Your task to perform on an android device: Clear the shopping cart on costco. Search for "logitech g pro" on costco, select the first entry, and add it to the cart. Image 0: 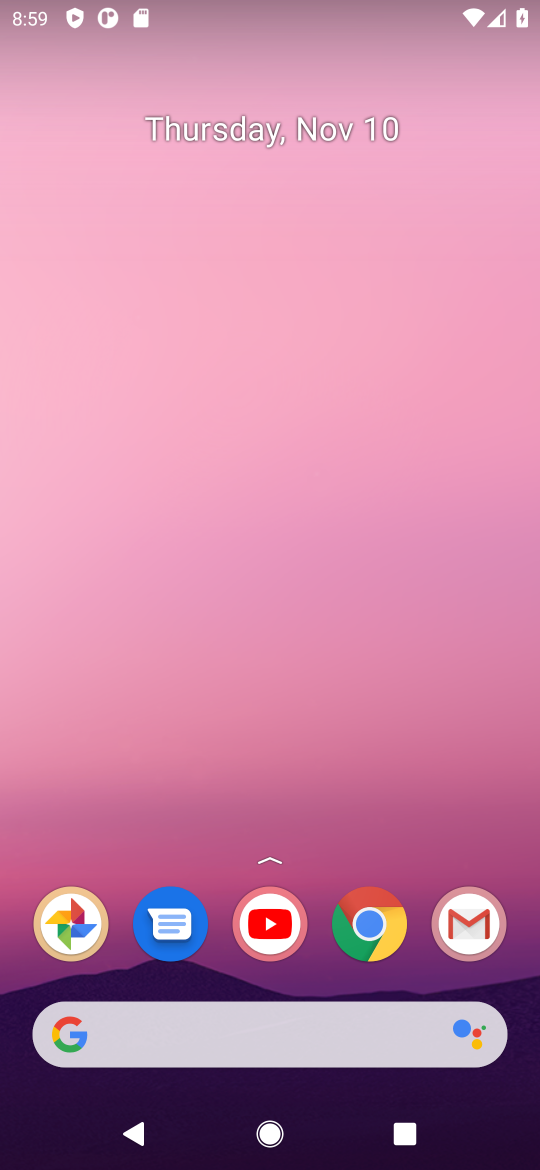
Step 0: click (362, 935)
Your task to perform on an android device: Clear the shopping cart on costco. Search for "logitech g pro" on costco, select the first entry, and add it to the cart. Image 1: 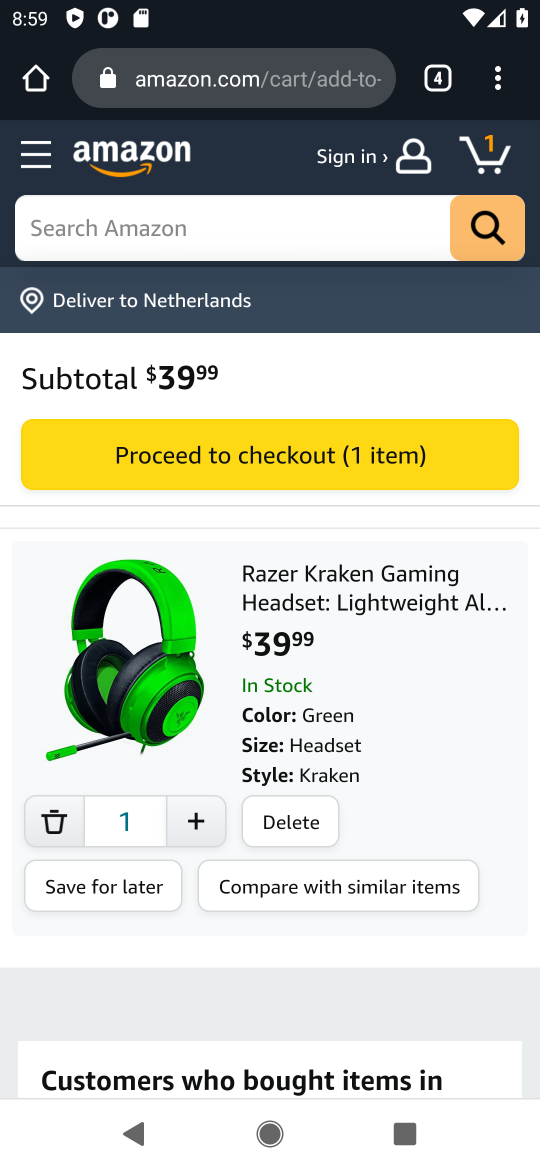
Step 1: click (192, 77)
Your task to perform on an android device: Clear the shopping cart on costco. Search for "logitech g pro" on costco, select the first entry, and add it to the cart. Image 2: 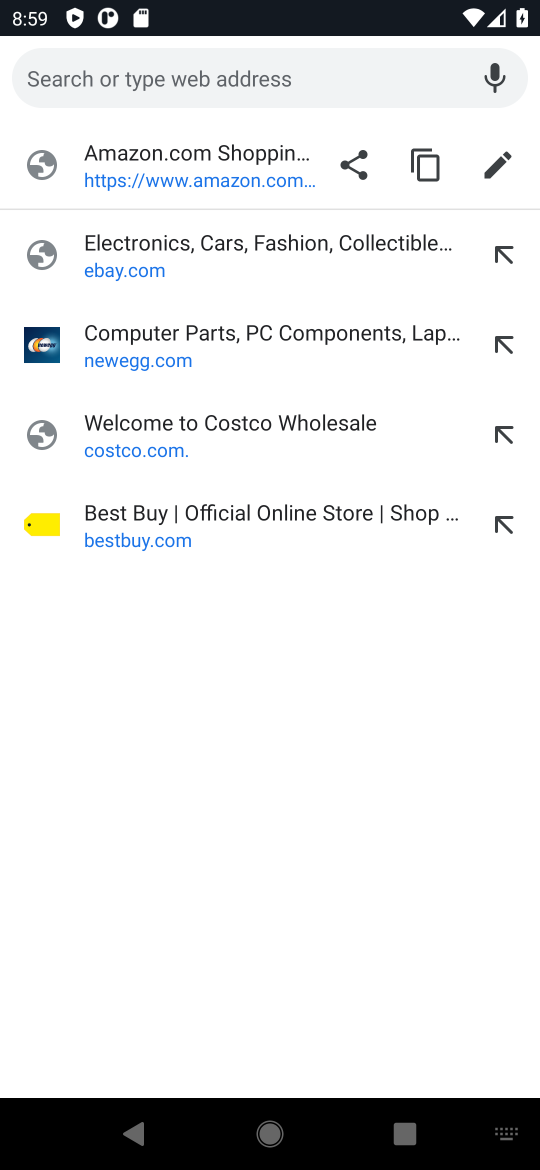
Step 2: click (118, 422)
Your task to perform on an android device: Clear the shopping cart on costco. Search for "logitech g pro" on costco, select the first entry, and add it to the cart. Image 3: 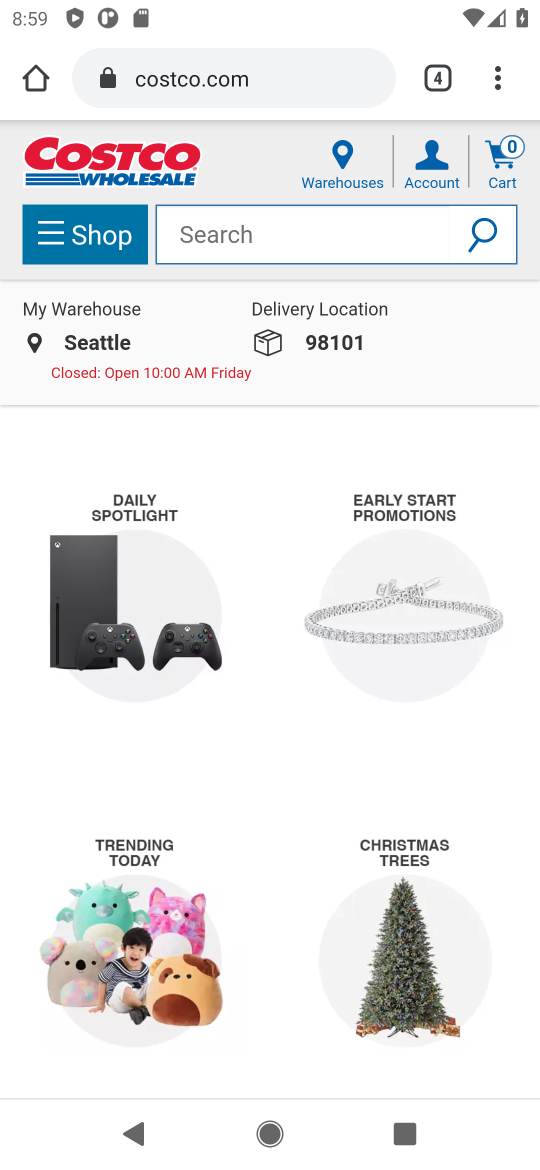
Step 3: click (497, 161)
Your task to perform on an android device: Clear the shopping cart on costco. Search for "logitech g pro" on costco, select the first entry, and add it to the cart. Image 4: 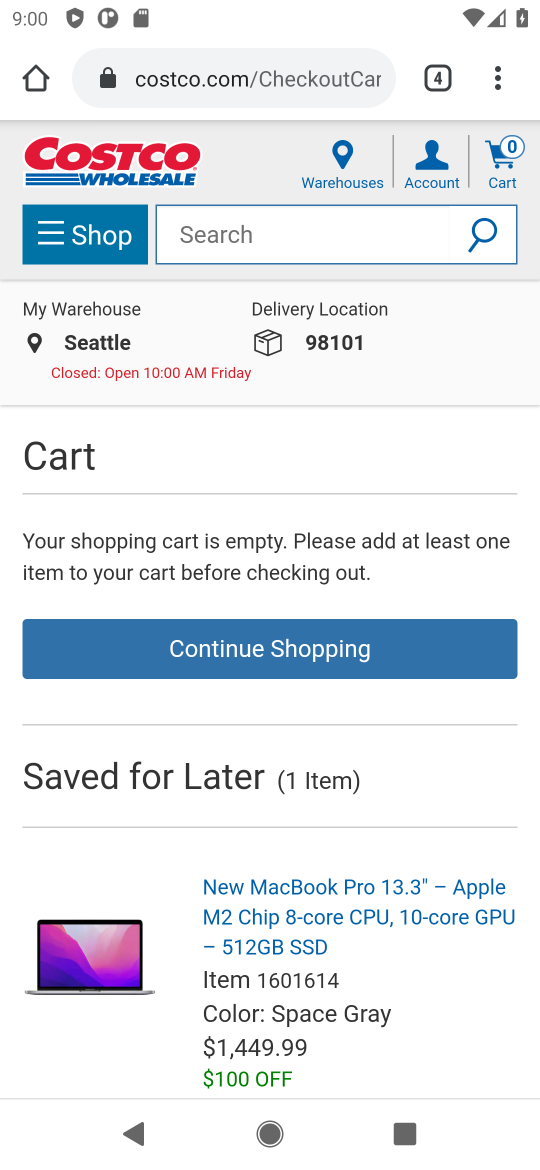
Step 4: click (222, 245)
Your task to perform on an android device: Clear the shopping cart on costco. Search for "logitech g pro" on costco, select the first entry, and add it to the cart. Image 5: 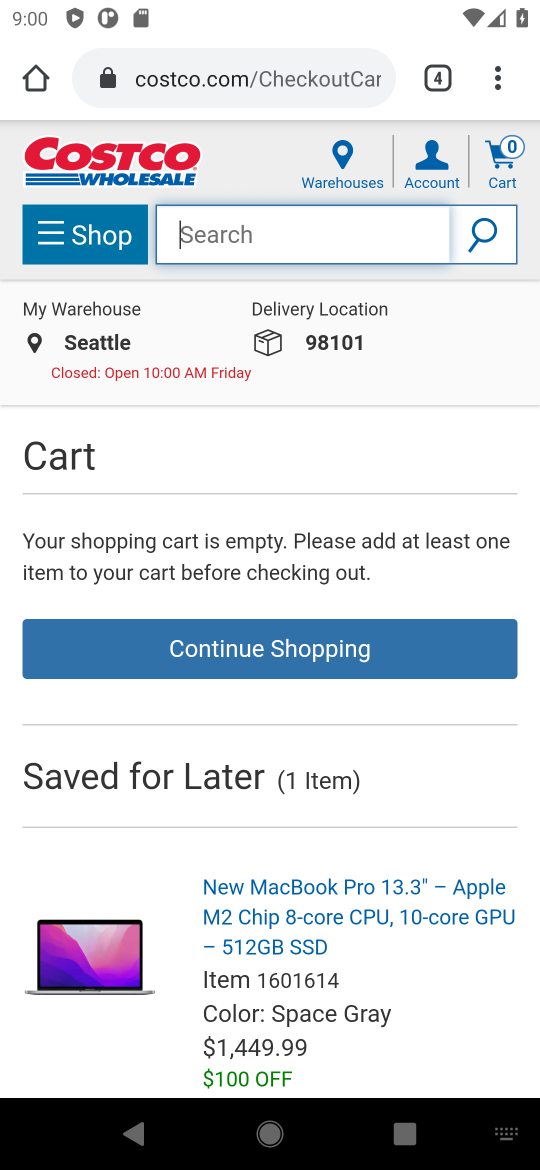
Step 5: type "logitech g pro"
Your task to perform on an android device: Clear the shopping cart on costco. Search for "logitech g pro" on costco, select the first entry, and add it to the cart. Image 6: 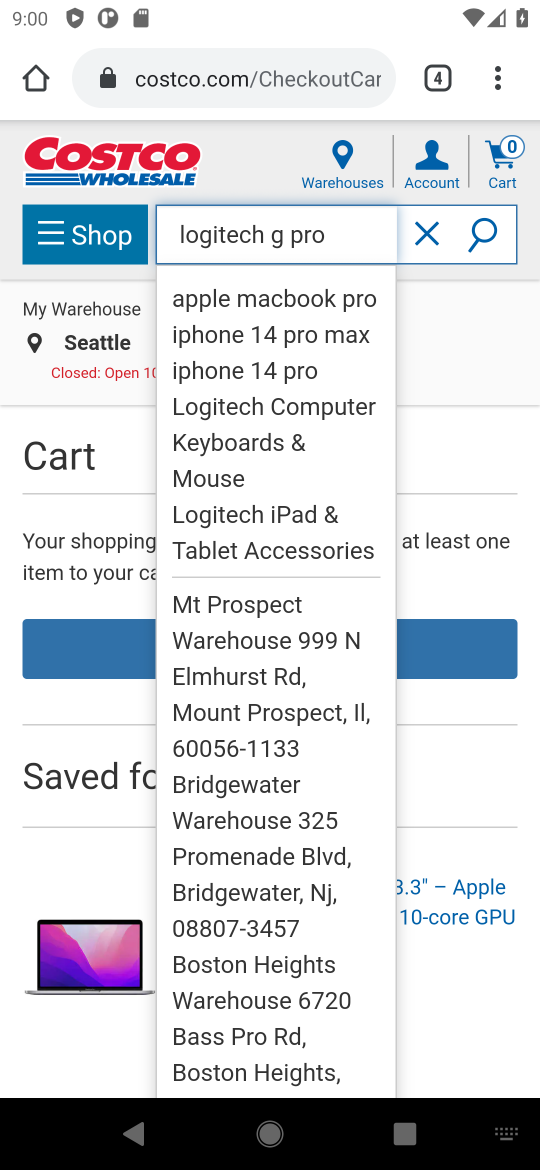
Step 6: click (490, 245)
Your task to perform on an android device: Clear the shopping cart on costco. Search for "logitech g pro" on costco, select the first entry, and add it to the cart. Image 7: 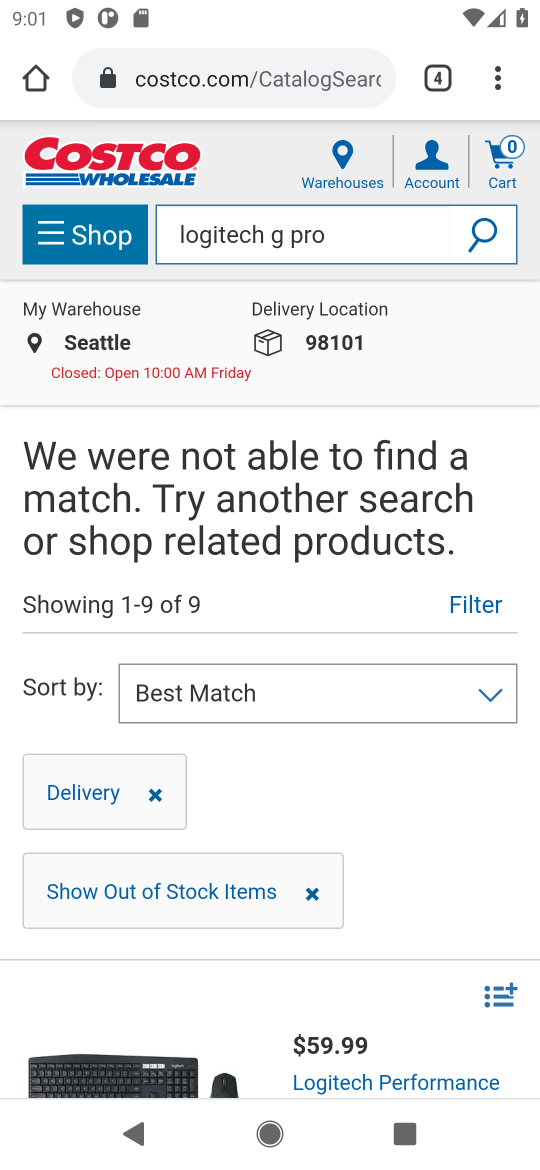
Step 7: task complete